Your task to perform on an android device: Set the phone to "Do not disturb". Image 0: 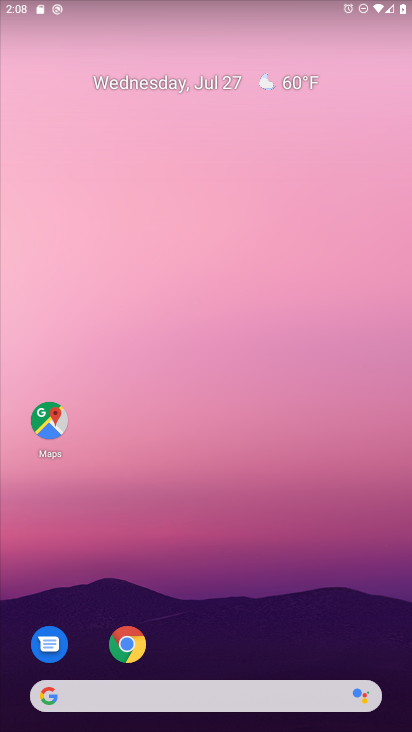
Step 0: drag from (211, 614) to (268, 83)
Your task to perform on an android device: Set the phone to "Do not disturb". Image 1: 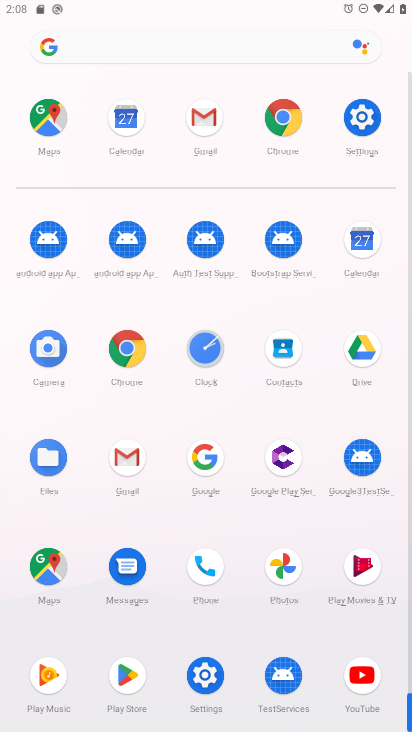
Step 1: click (361, 120)
Your task to perform on an android device: Set the phone to "Do not disturb". Image 2: 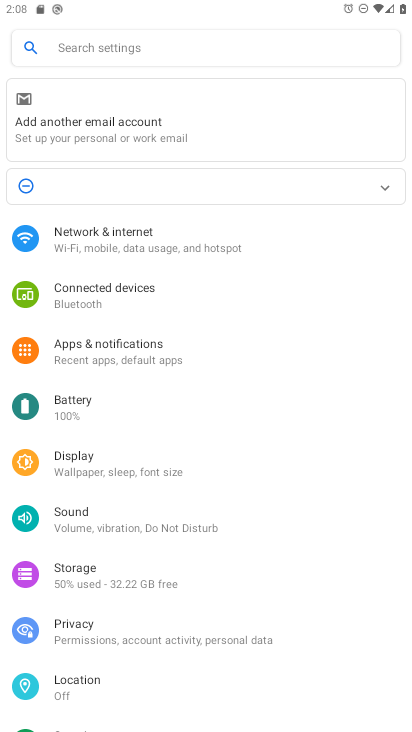
Step 2: drag from (160, 604) to (162, 357)
Your task to perform on an android device: Set the phone to "Do not disturb". Image 3: 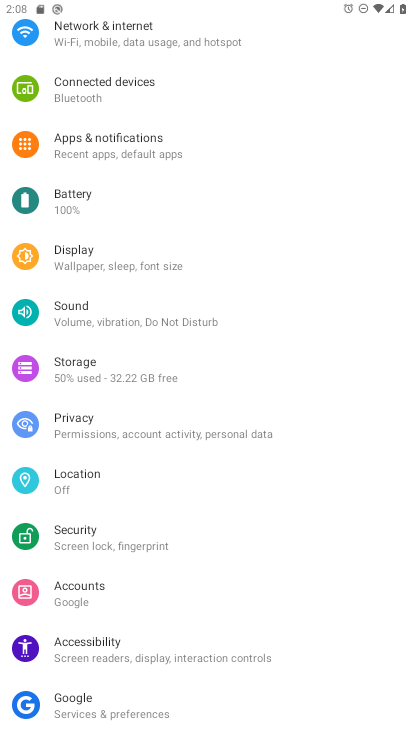
Step 3: drag from (128, 619) to (257, 188)
Your task to perform on an android device: Set the phone to "Do not disturb". Image 4: 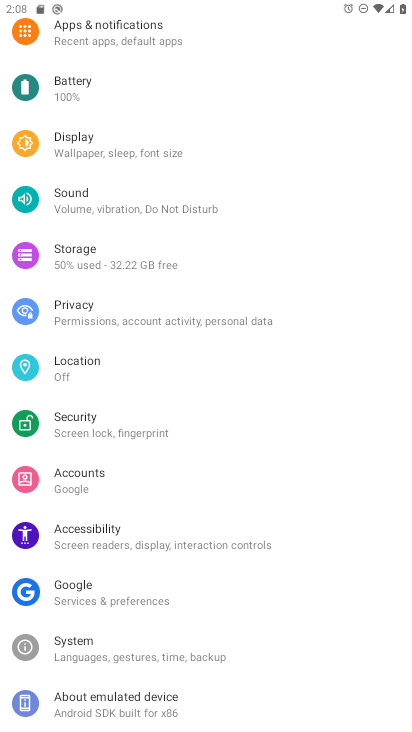
Step 4: click (157, 36)
Your task to perform on an android device: Set the phone to "Do not disturb". Image 5: 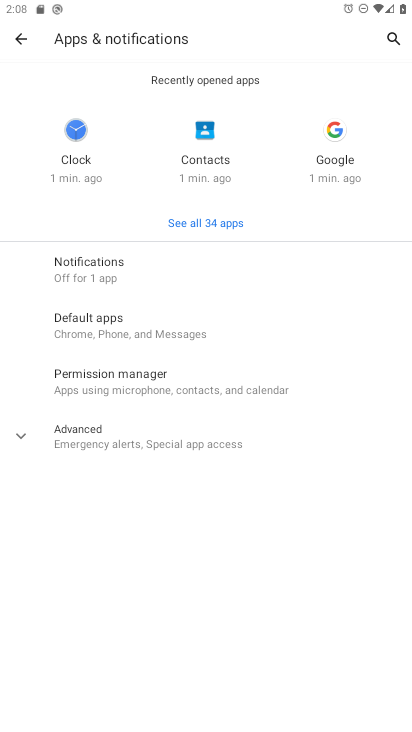
Step 5: click (158, 271)
Your task to perform on an android device: Set the phone to "Do not disturb". Image 6: 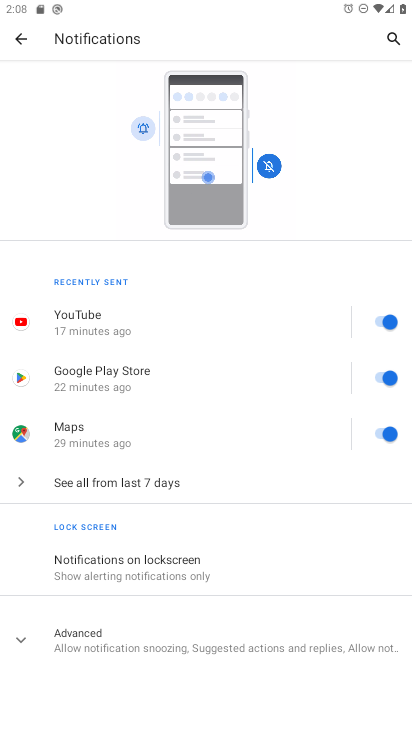
Step 6: drag from (173, 474) to (206, 141)
Your task to perform on an android device: Set the phone to "Do not disturb". Image 7: 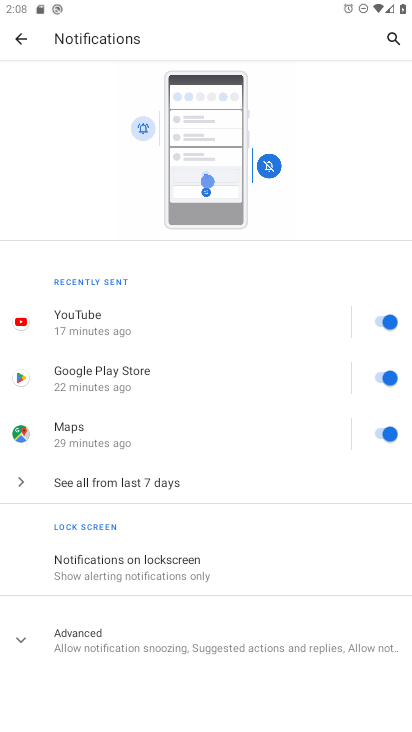
Step 7: drag from (180, 623) to (187, 389)
Your task to perform on an android device: Set the phone to "Do not disturb". Image 8: 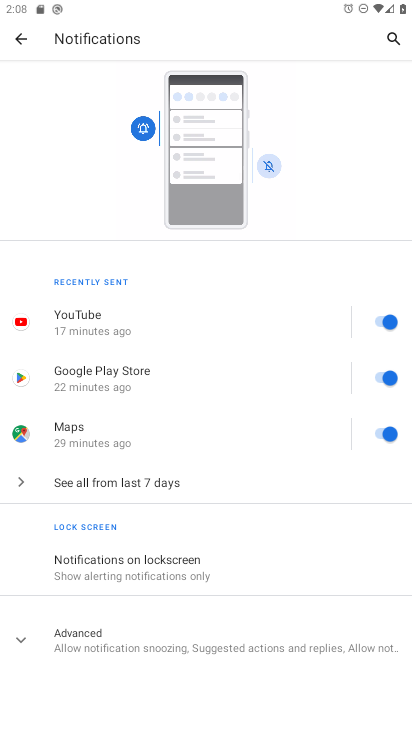
Step 8: click (205, 628)
Your task to perform on an android device: Set the phone to "Do not disturb". Image 9: 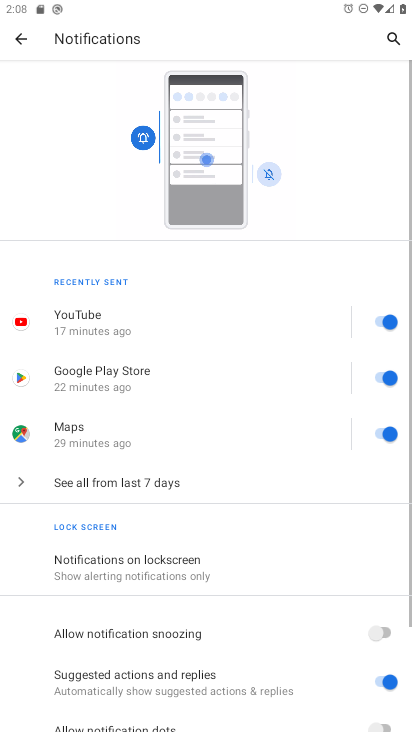
Step 9: drag from (214, 653) to (231, 214)
Your task to perform on an android device: Set the phone to "Do not disturb". Image 10: 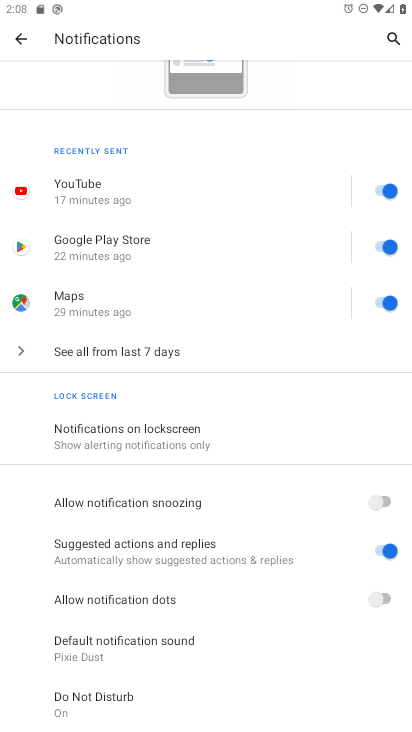
Step 10: click (130, 716)
Your task to perform on an android device: Set the phone to "Do not disturb". Image 11: 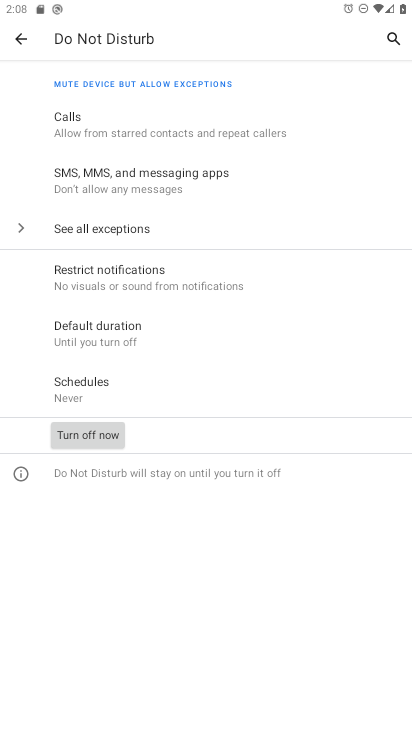
Step 11: task complete